Your task to perform on an android device: Open Maps and search for coffee Image 0: 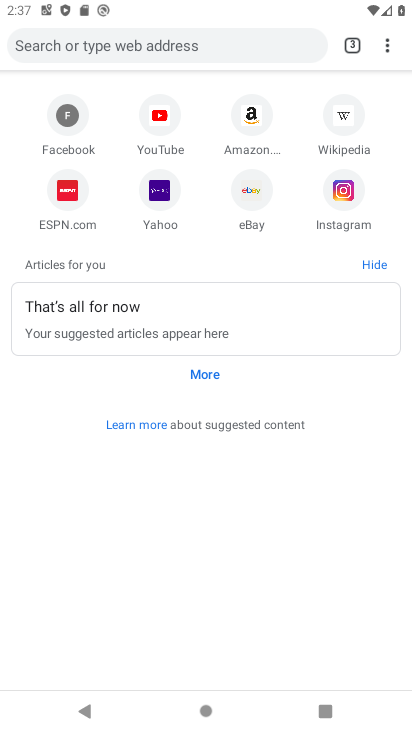
Step 0: press home button
Your task to perform on an android device: Open Maps and search for coffee Image 1: 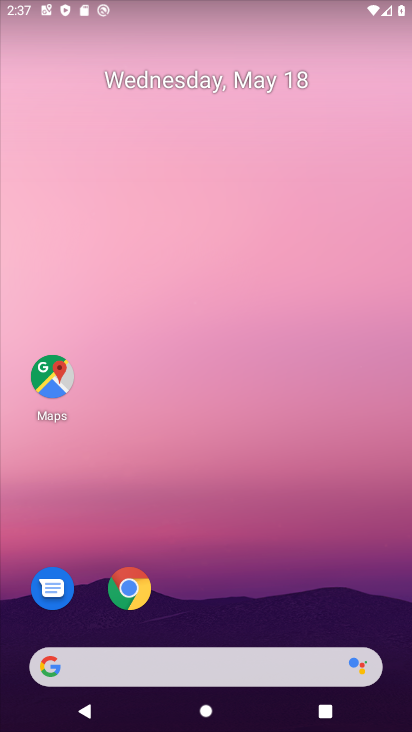
Step 1: drag from (362, 595) to (347, 131)
Your task to perform on an android device: Open Maps and search for coffee Image 2: 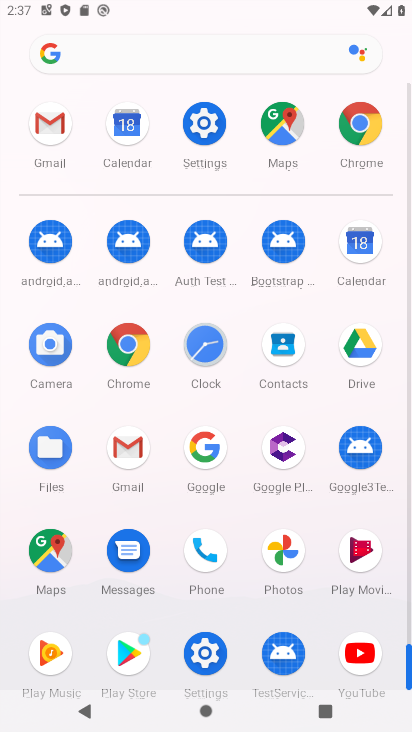
Step 2: click (38, 577)
Your task to perform on an android device: Open Maps and search for coffee Image 3: 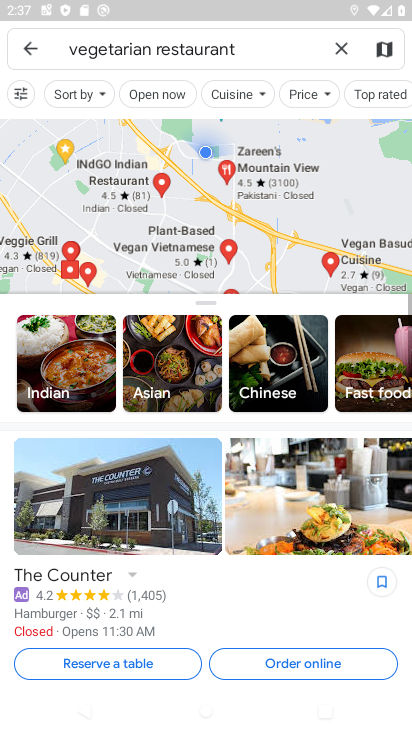
Step 3: click (336, 39)
Your task to perform on an android device: Open Maps and search for coffee Image 4: 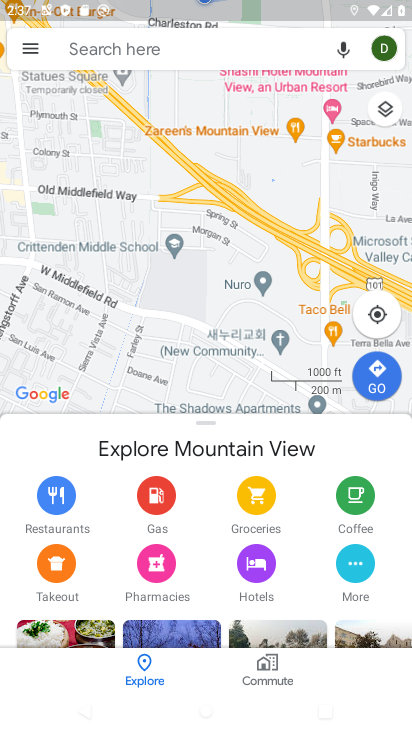
Step 4: click (174, 52)
Your task to perform on an android device: Open Maps and search for coffee Image 5: 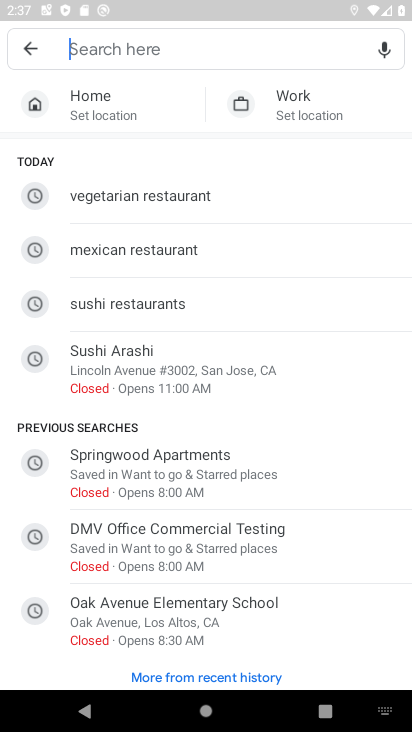
Step 5: type "coffee"
Your task to perform on an android device: Open Maps and search for coffee Image 6: 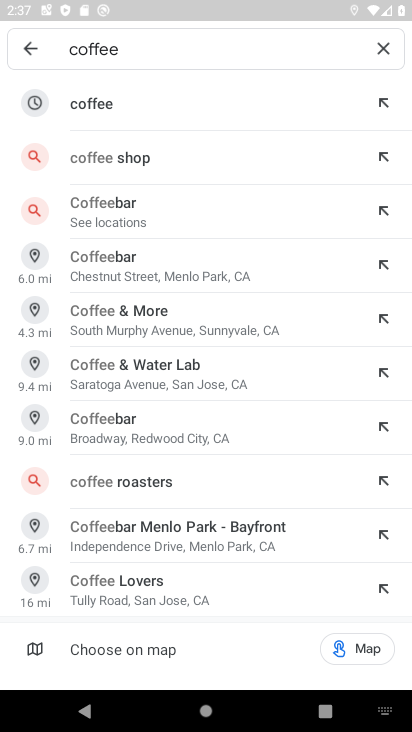
Step 6: click (126, 110)
Your task to perform on an android device: Open Maps and search for coffee Image 7: 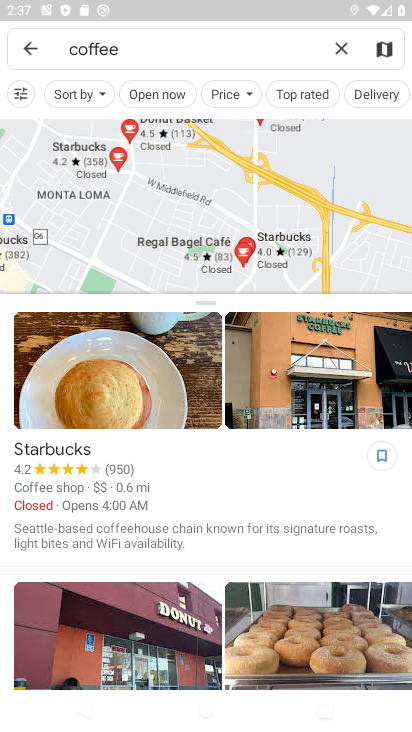
Step 7: task complete